Your task to perform on an android device: turn off sleep mode Image 0: 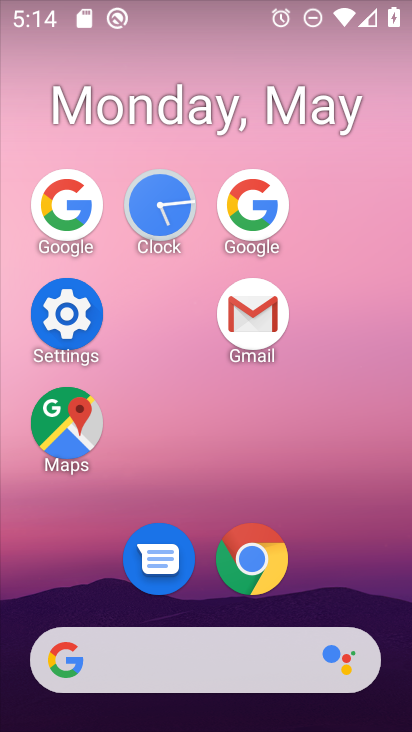
Step 0: click (75, 327)
Your task to perform on an android device: turn off sleep mode Image 1: 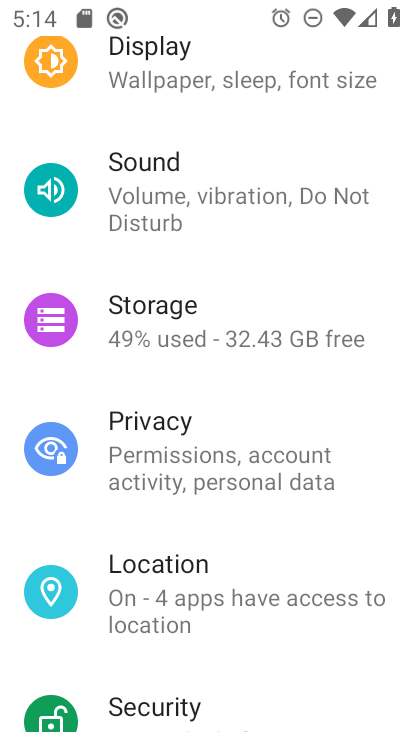
Step 1: click (278, 69)
Your task to perform on an android device: turn off sleep mode Image 2: 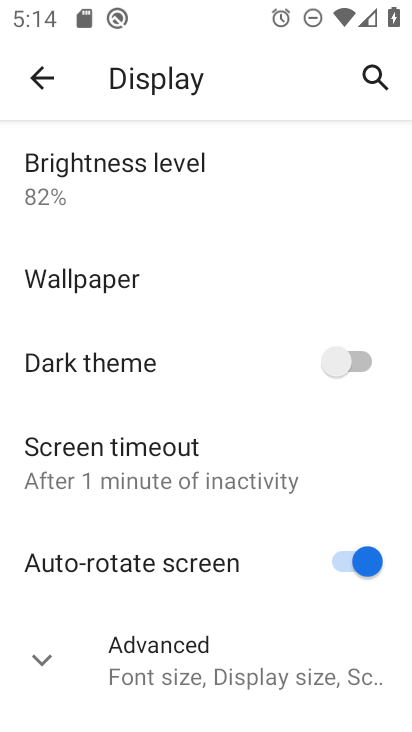
Step 2: task complete